Your task to perform on an android device: When is my next meeting? Image 0: 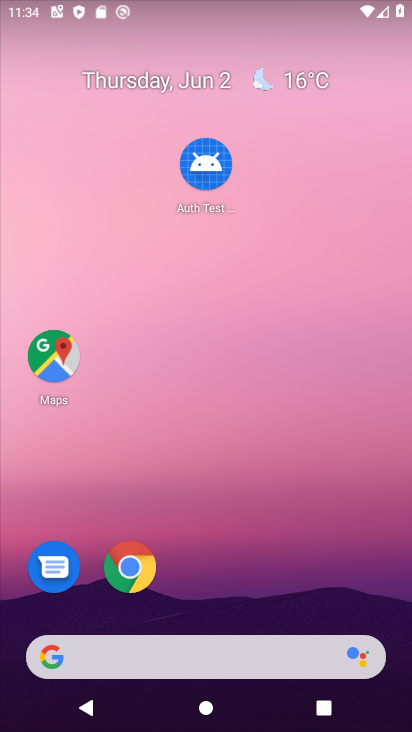
Step 0: click (120, 77)
Your task to perform on an android device: When is my next meeting? Image 1: 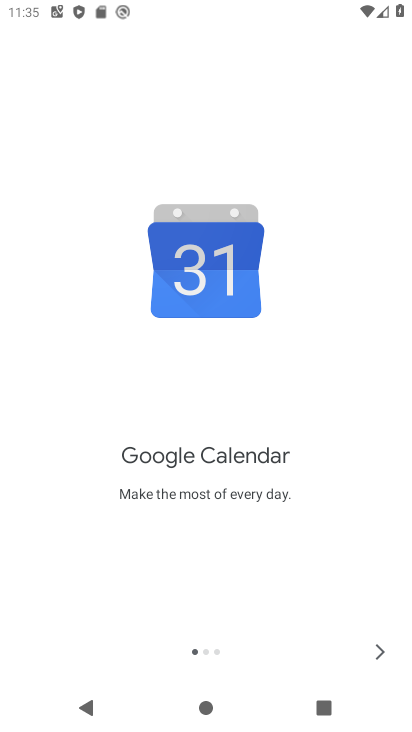
Step 1: click (395, 626)
Your task to perform on an android device: When is my next meeting? Image 2: 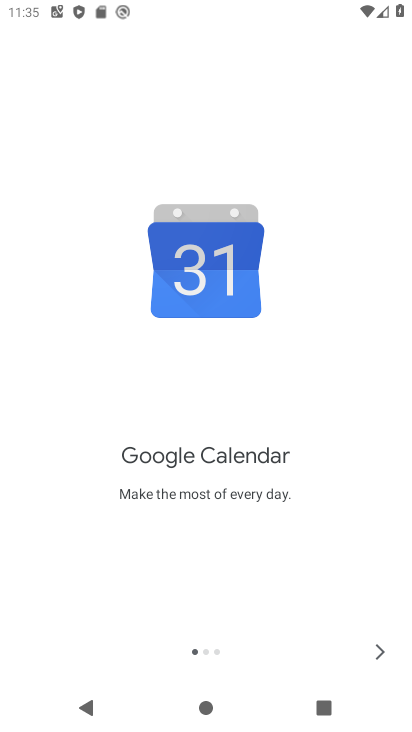
Step 2: click (383, 641)
Your task to perform on an android device: When is my next meeting? Image 3: 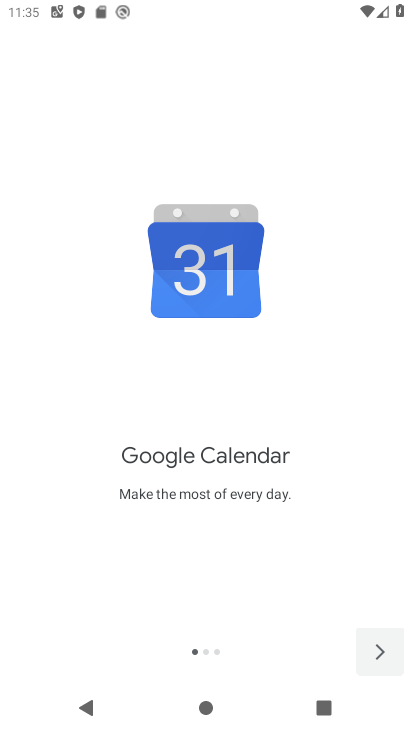
Step 3: click (383, 641)
Your task to perform on an android device: When is my next meeting? Image 4: 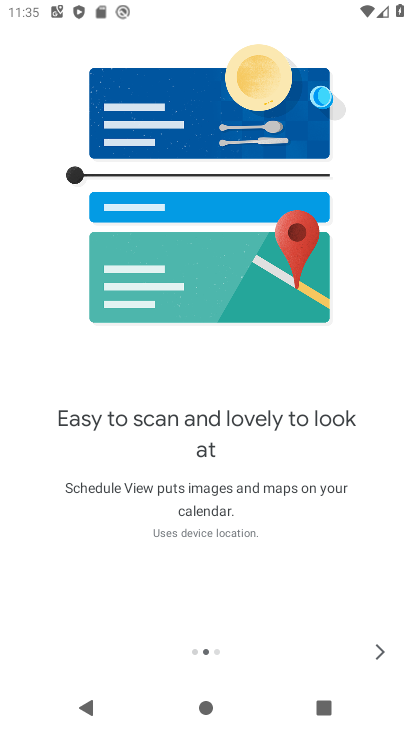
Step 4: click (383, 641)
Your task to perform on an android device: When is my next meeting? Image 5: 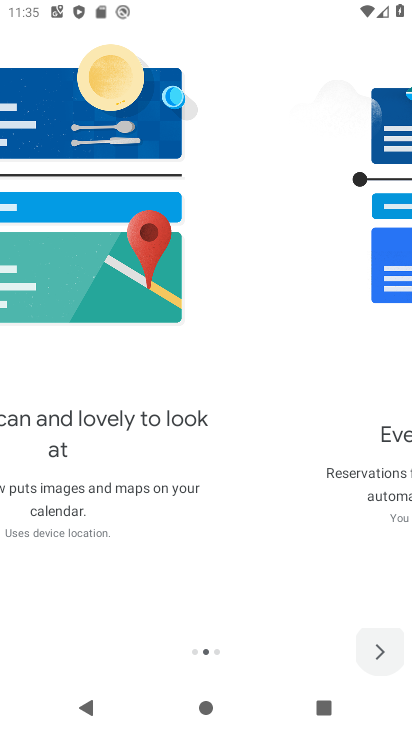
Step 5: click (383, 641)
Your task to perform on an android device: When is my next meeting? Image 6: 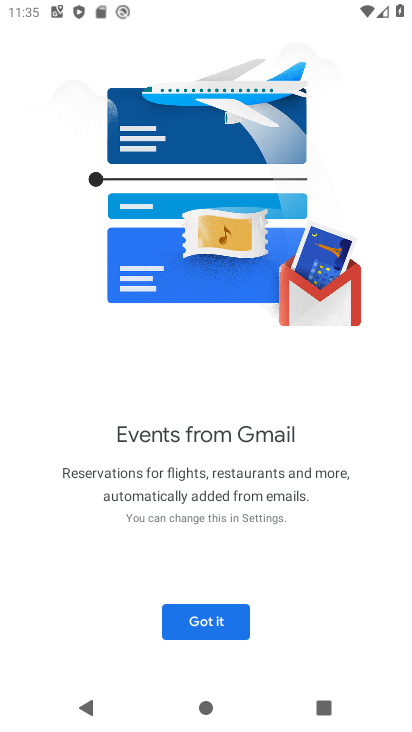
Step 6: click (199, 618)
Your task to perform on an android device: When is my next meeting? Image 7: 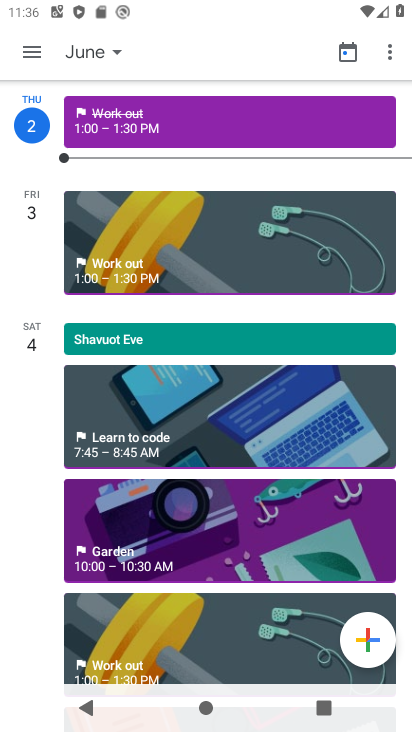
Step 7: task complete